Your task to perform on an android device: Toggle the flashlight Image 0: 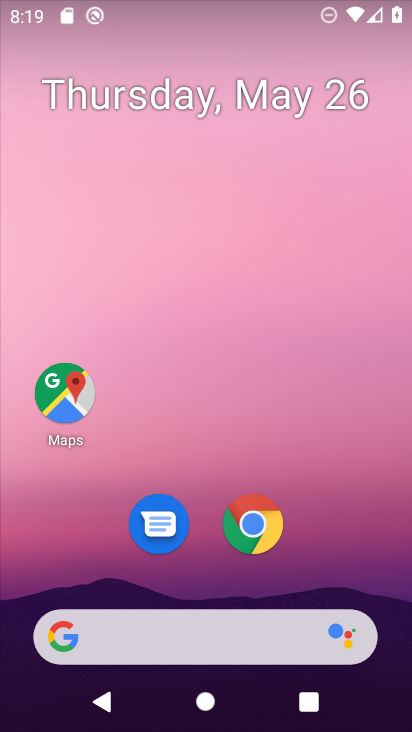
Step 0: drag from (323, 489) to (320, 7)
Your task to perform on an android device: Toggle the flashlight Image 1: 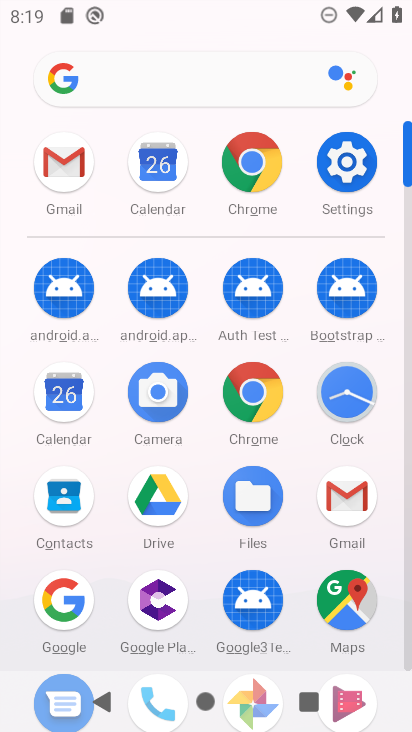
Step 1: click (347, 165)
Your task to perform on an android device: Toggle the flashlight Image 2: 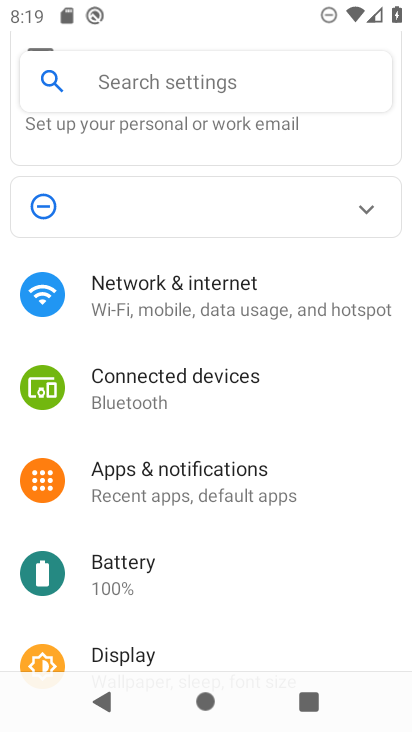
Step 2: click (266, 71)
Your task to perform on an android device: Toggle the flashlight Image 3: 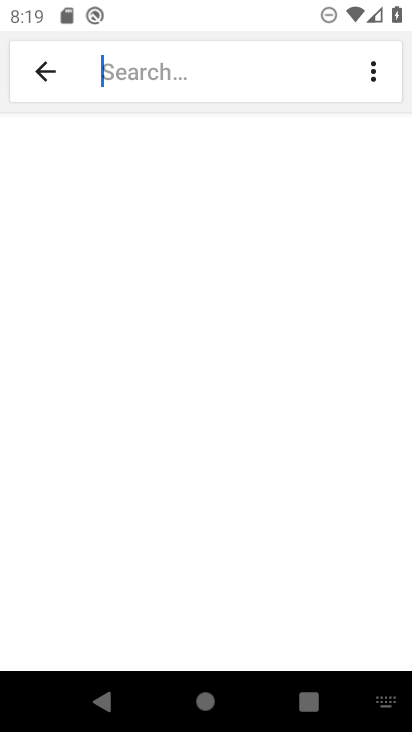
Step 3: type "Flashlight"
Your task to perform on an android device: Toggle the flashlight Image 4: 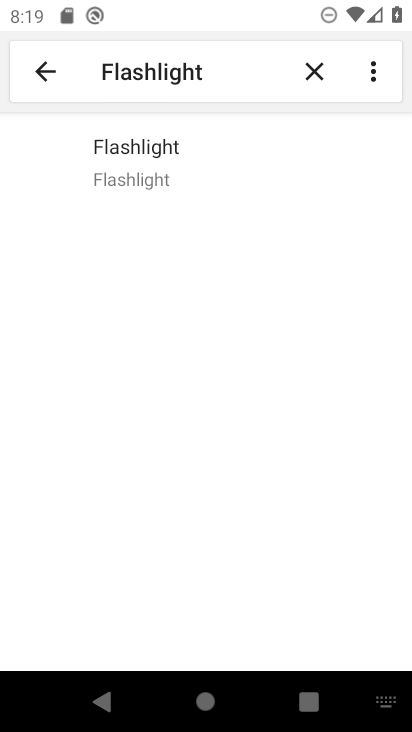
Step 4: click (145, 154)
Your task to perform on an android device: Toggle the flashlight Image 5: 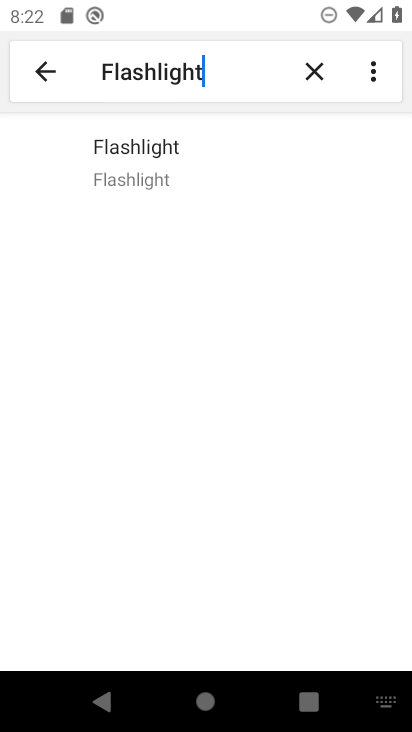
Step 5: task complete